Your task to perform on an android device: Search for vegetarian restaurants on Maps Image 0: 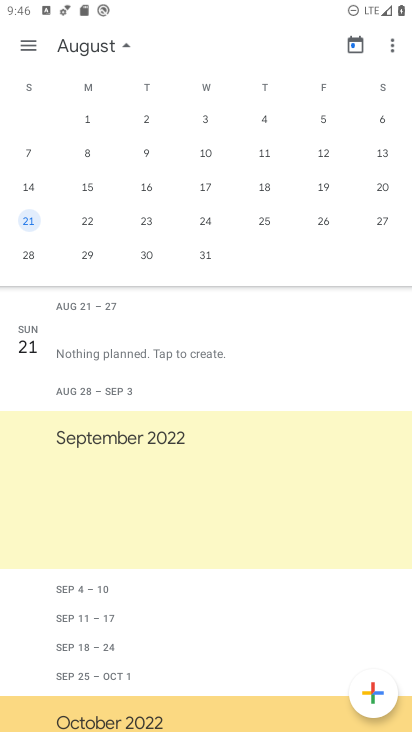
Step 0: press home button
Your task to perform on an android device: Search for vegetarian restaurants on Maps Image 1: 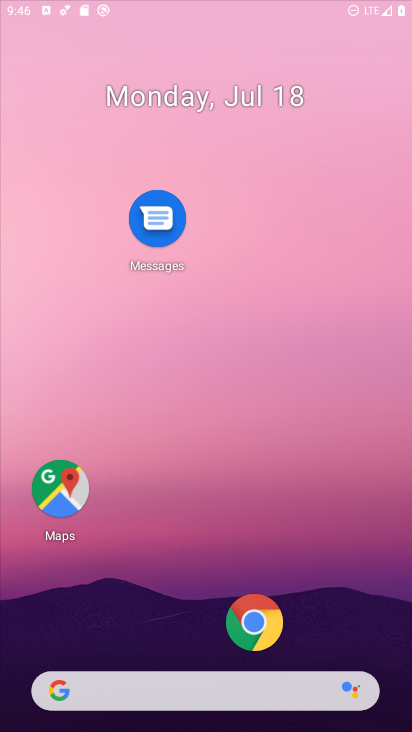
Step 1: drag from (241, 672) to (237, 130)
Your task to perform on an android device: Search for vegetarian restaurants on Maps Image 2: 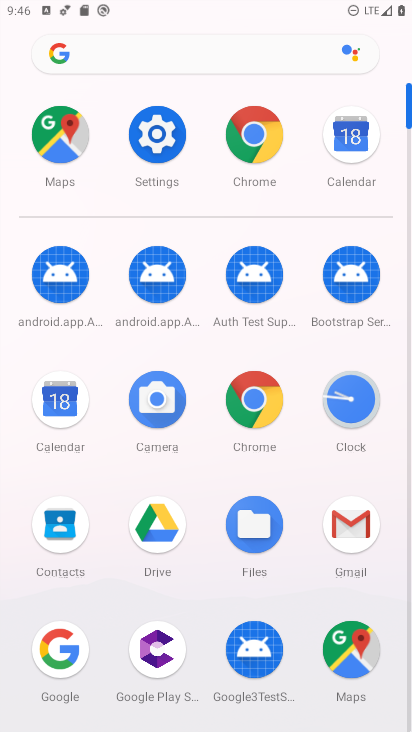
Step 2: drag from (230, 557) to (246, 212)
Your task to perform on an android device: Search for vegetarian restaurants on Maps Image 3: 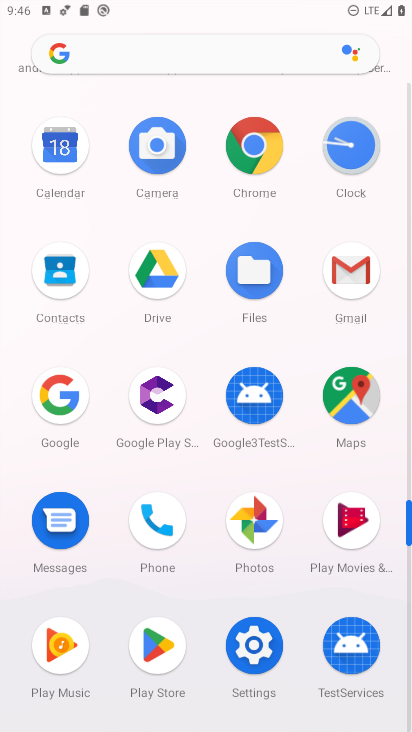
Step 3: click (348, 408)
Your task to perform on an android device: Search for vegetarian restaurants on Maps Image 4: 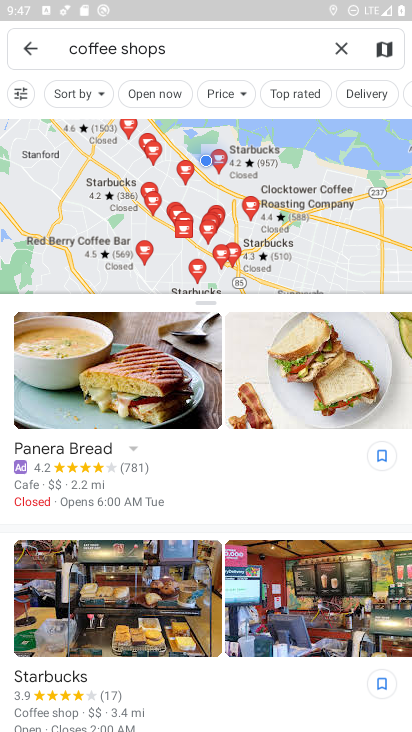
Step 4: click (335, 53)
Your task to perform on an android device: Search for vegetarian restaurants on Maps Image 5: 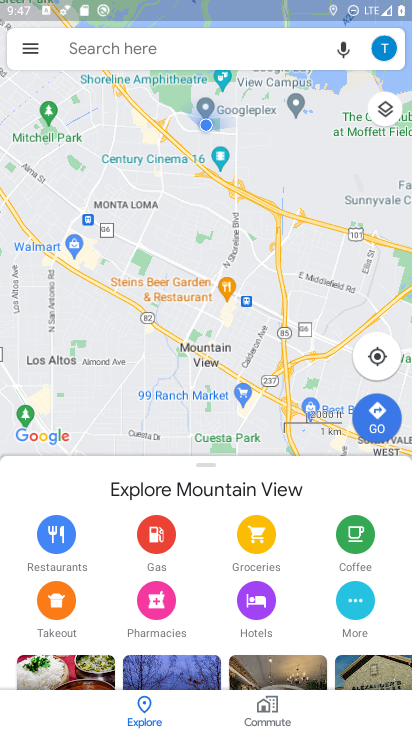
Step 5: click (202, 53)
Your task to perform on an android device: Search for vegetarian restaurants on Maps Image 6: 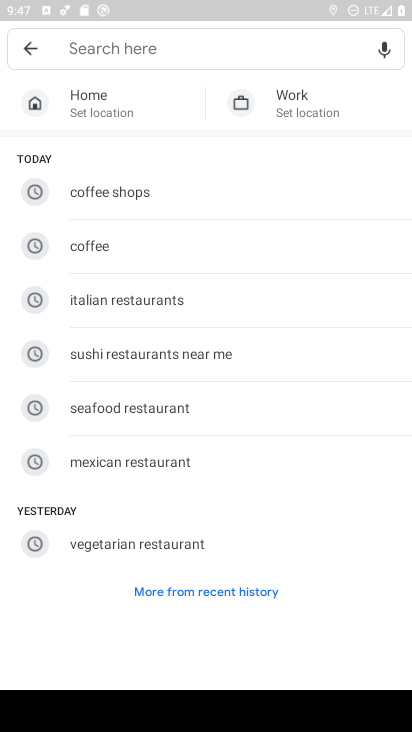
Step 6: type "vegetarian"
Your task to perform on an android device: Search for vegetarian restaurants on Maps Image 7: 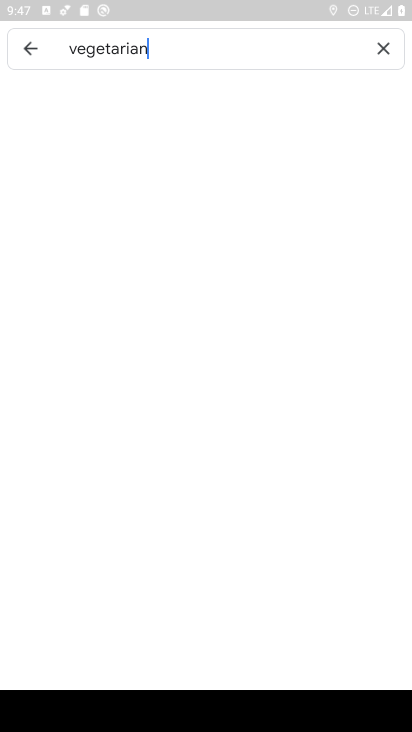
Step 7: type ""
Your task to perform on an android device: Search for vegetarian restaurants on Maps Image 8: 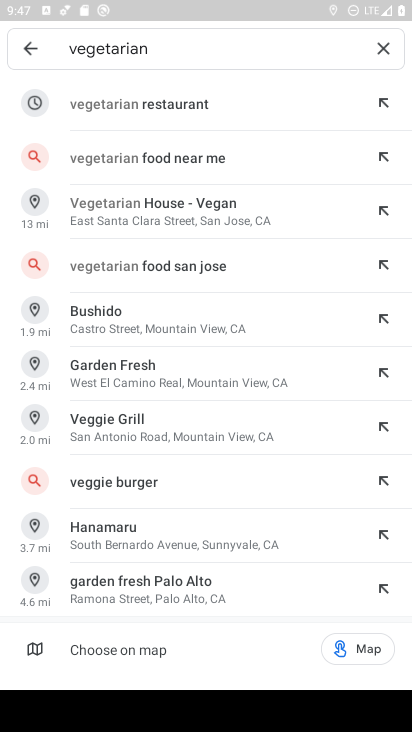
Step 8: click (266, 111)
Your task to perform on an android device: Search for vegetarian restaurants on Maps Image 9: 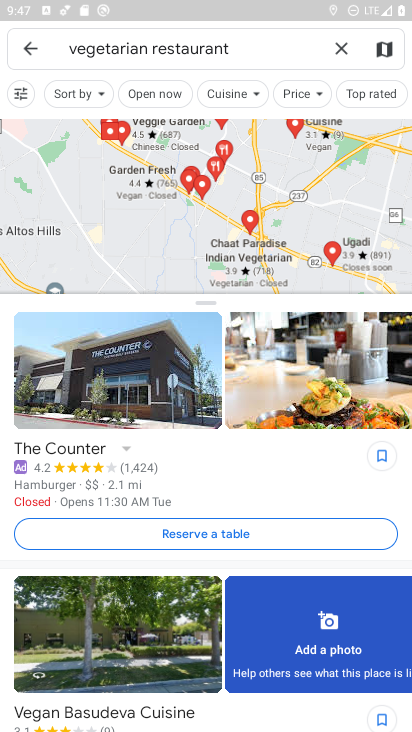
Step 9: task complete